Your task to perform on an android device: uninstall "LiveIn - Share Your Moment" Image 0: 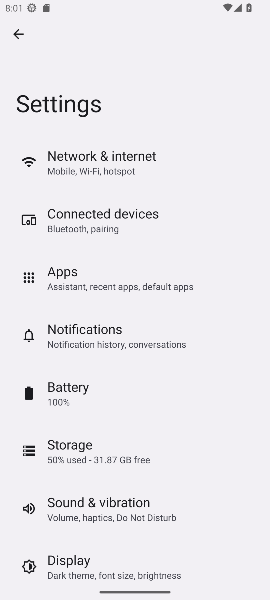
Step 0: press home button
Your task to perform on an android device: uninstall "LiveIn - Share Your Moment" Image 1: 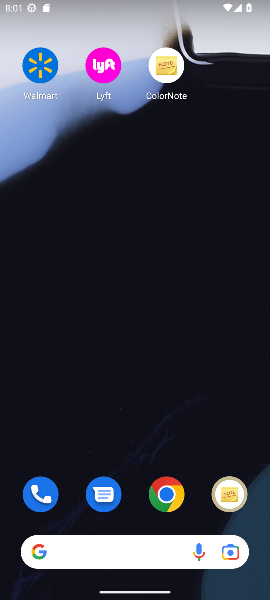
Step 1: drag from (247, 518) to (240, 90)
Your task to perform on an android device: uninstall "LiveIn - Share Your Moment" Image 2: 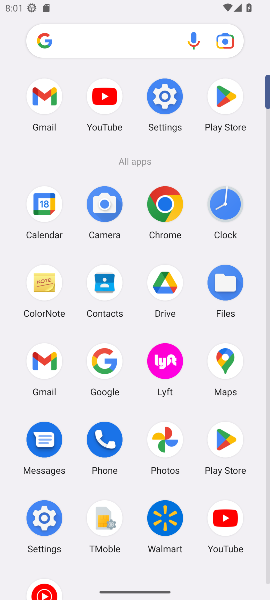
Step 2: click (240, 90)
Your task to perform on an android device: uninstall "LiveIn - Share Your Moment" Image 3: 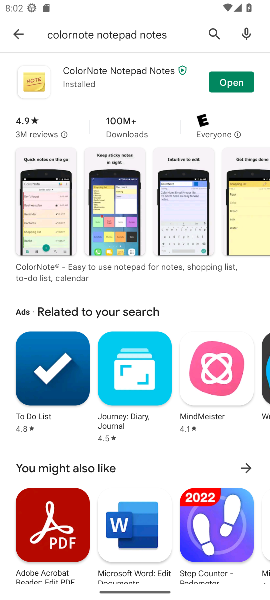
Step 3: click (240, 90)
Your task to perform on an android device: uninstall "LiveIn - Share Your Moment" Image 4: 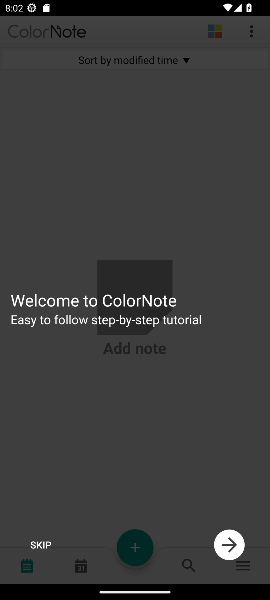
Step 4: press home button
Your task to perform on an android device: uninstall "LiveIn - Share Your Moment" Image 5: 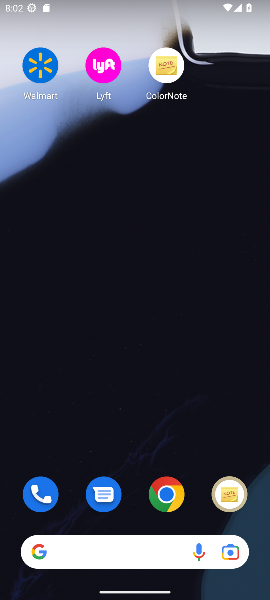
Step 5: drag from (183, 521) to (178, 52)
Your task to perform on an android device: uninstall "LiveIn - Share Your Moment" Image 6: 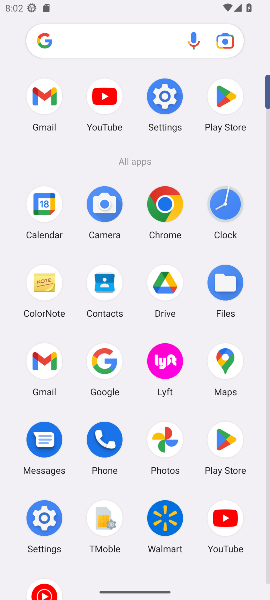
Step 6: click (227, 439)
Your task to perform on an android device: uninstall "LiveIn - Share Your Moment" Image 7: 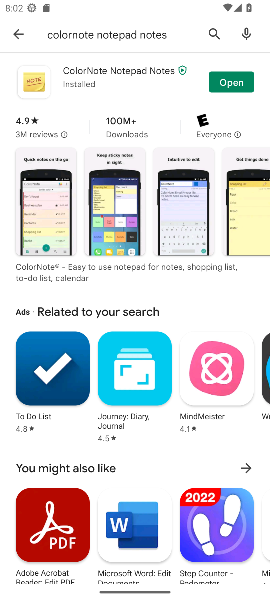
Step 7: click (211, 29)
Your task to perform on an android device: uninstall "LiveIn - Share Your Moment" Image 8: 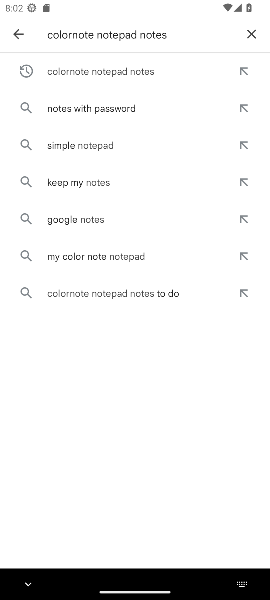
Step 8: click (252, 36)
Your task to perform on an android device: uninstall "LiveIn - Share Your Moment" Image 9: 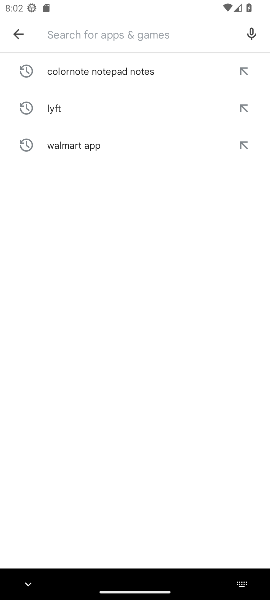
Step 9: type "LiveIn - Share Your Moment"
Your task to perform on an android device: uninstall "LiveIn - Share Your Moment" Image 10: 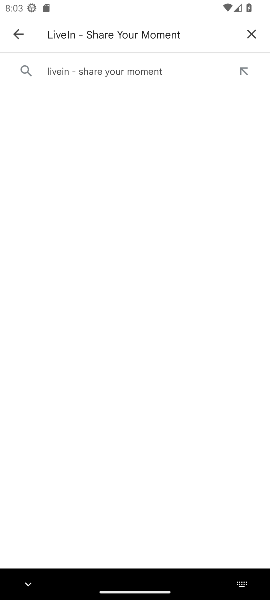
Step 10: click (119, 71)
Your task to perform on an android device: uninstall "LiveIn - Share Your Moment" Image 11: 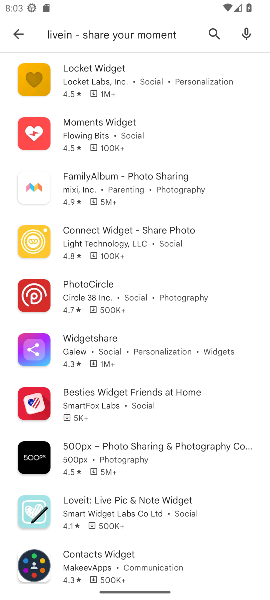
Step 11: task complete